Your task to perform on an android device: What's the weather today? Image 0: 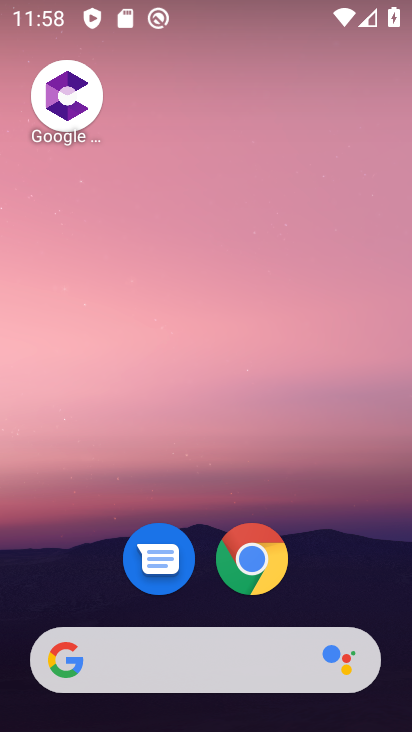
Step 0: click (212, 644)
Your task to perform on an android device: What's the weather today? Image 1: 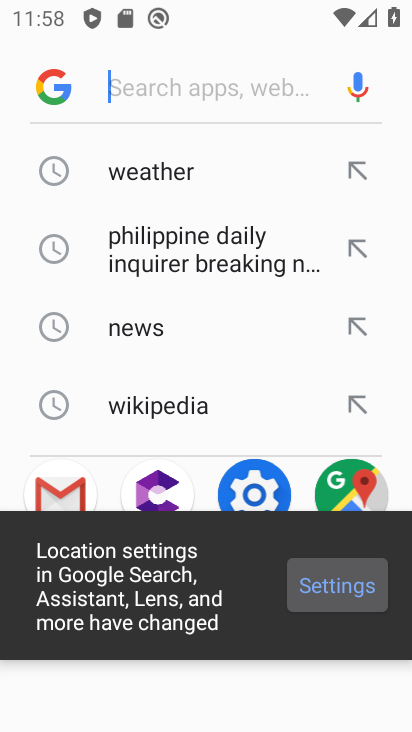
Step 1: click (127, 162)
Your task to perform on an android device: What's the weather today? Image 2: 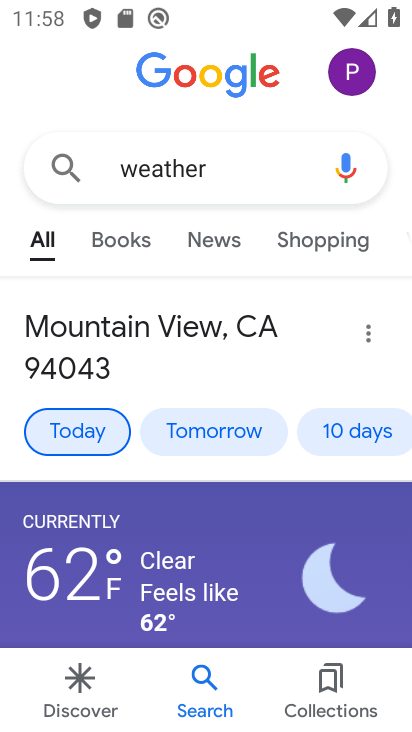
Step 2: click (53, 440)
Your task to perform on an android device: What's the weather today? Image 3: 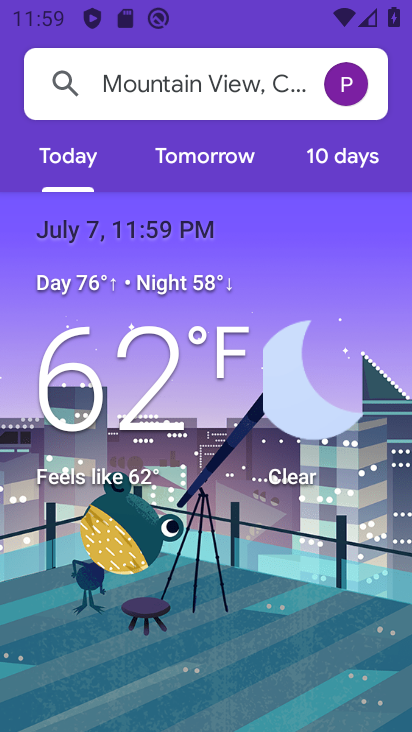
Step 3: task complete